Your task to perform on an android device: add a contact in the contacts app Image 0: 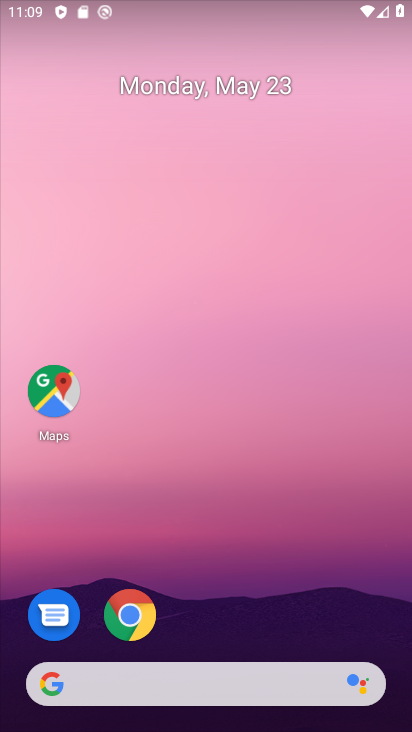
Step 0: drag from (177, 638) to (283, 2)
Your task to perform on an android device: add a contact in the contacts app Image 1: 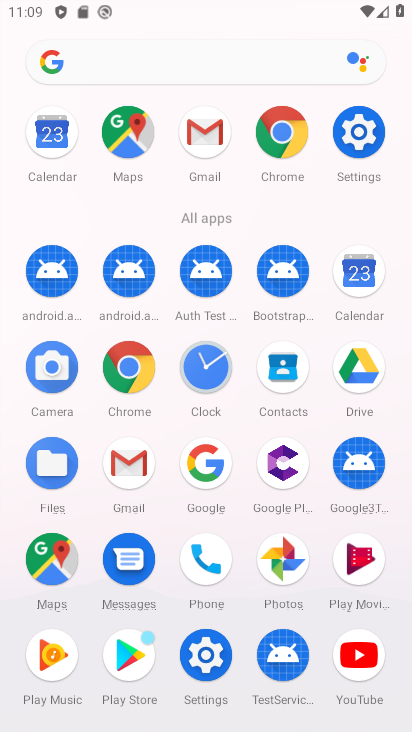
Step 1: click (273, 371)
Your task to perform on an android device: add a contact in the contacts app Image 2: 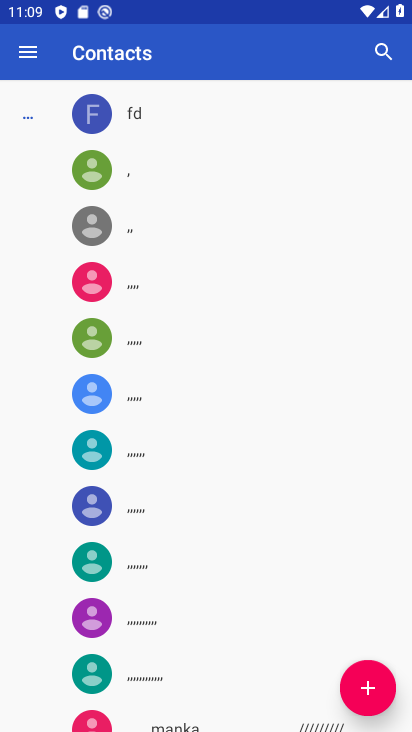
Step 2: click (367, 670)
Your task to perform on an android device: add a contact in the contacts app Image 3: 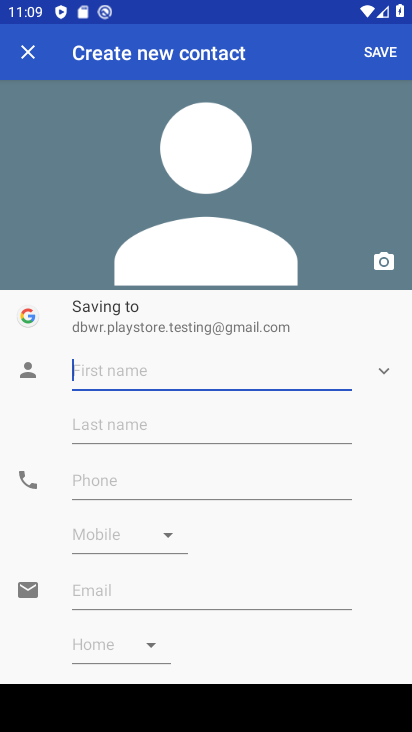
Step 3: type "uchaal"
Your task to perform on an android device: add a contact in the contacts app Image 4: 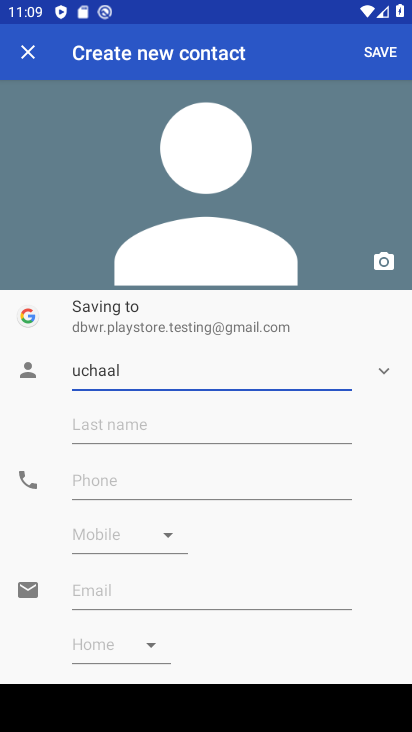
Step 4: click (106, 488)
Your task to perform on an android device: add a contact in the contacts app Image 5: 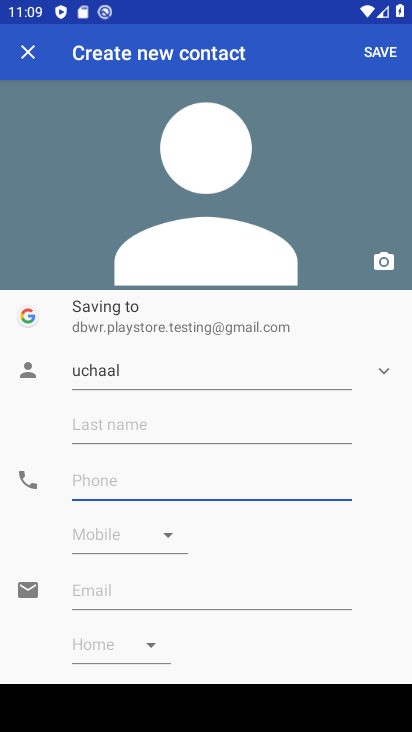
Step 5: type "8765434567"
Your task to perform on an android device: add a contact in the contacts app Image 6: 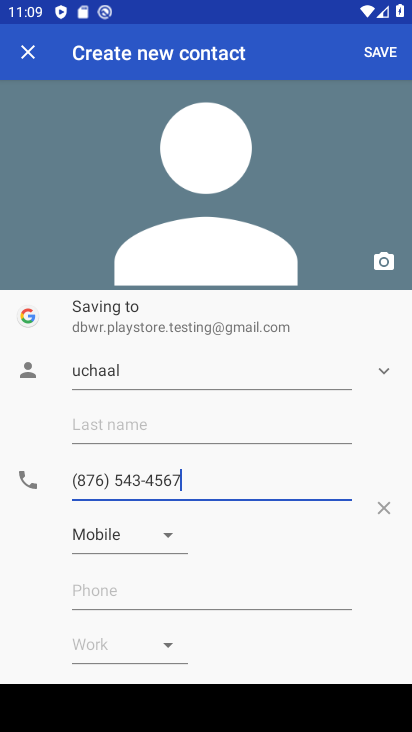
Step 6: click (376, 68)
Your task to perform on an android device: add a contact in the contacts app Image 7: 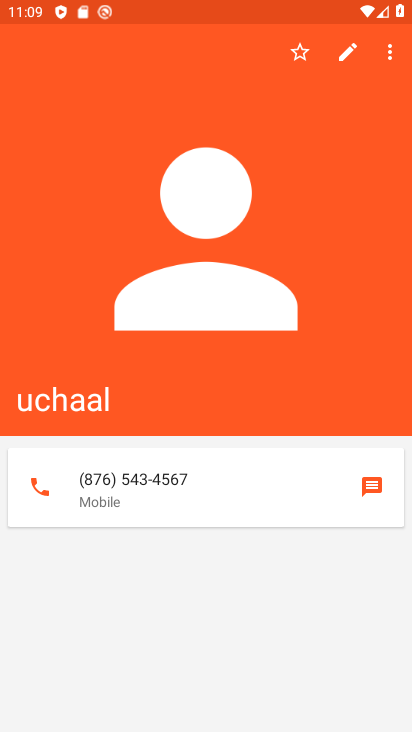
Step 7: task complete